Your task to perform on an android device: turn on priority inbox in the gmail app Image 0: 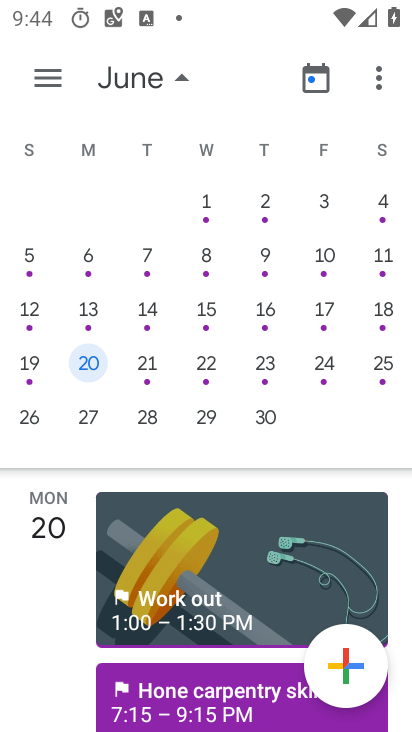
Step 0: press home button
Your task to perform on an android device: turn on priority inbox in the gmail app Image 1: 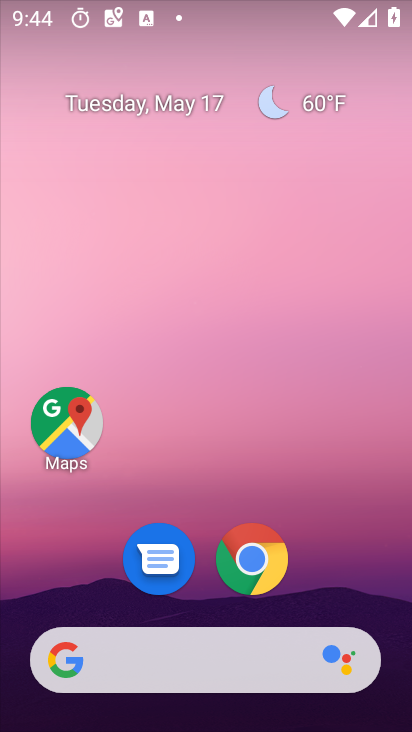
Step 1: drag from (248, 640) to (299, 146)
Your task to perform on an android device: turn on priority inbox in the gmail app Image 2: 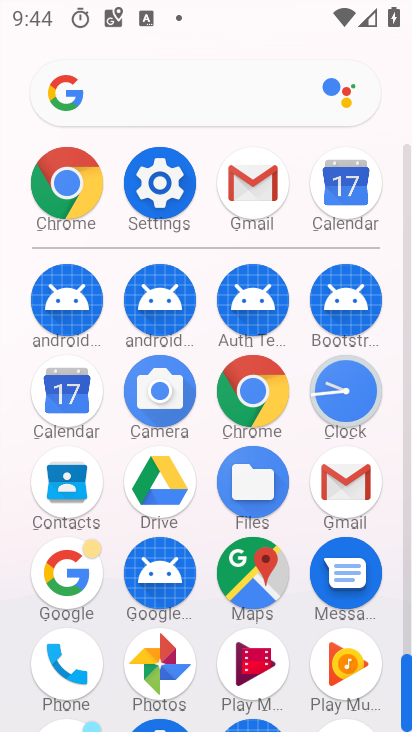
Step 2: click (356, 490)
Your task to perform on an android device: turn on priority inbox in the gmail app Image 3: 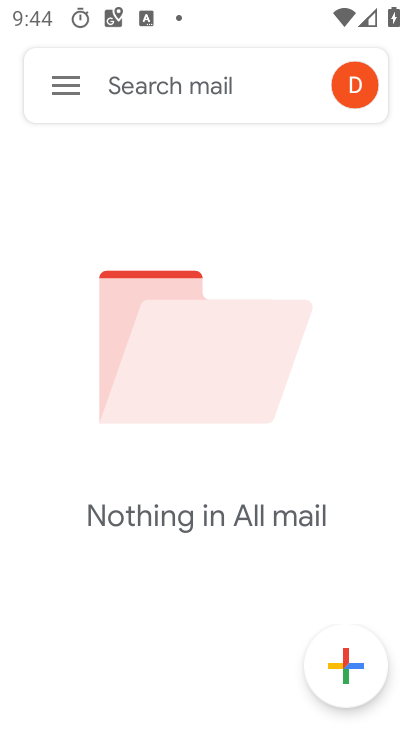
Step 3: click (69, 91)
Your task to perform on an android device: turn on priority inbox in the gmail app Image 4: 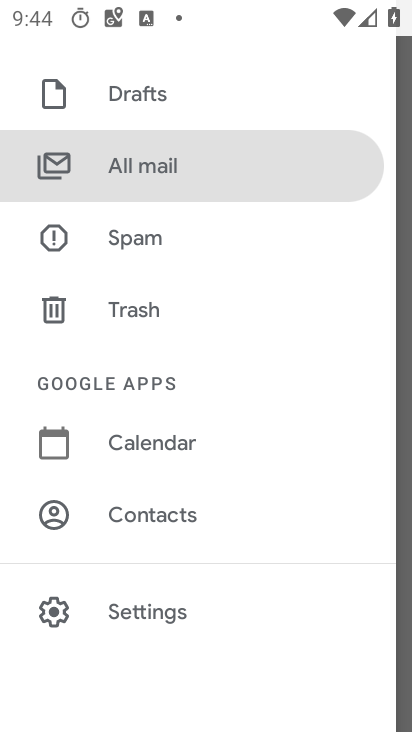
Step 4: click (157, 622)
Your task to perform on an android device: turn on priority inbox in the gmail app Image 5: 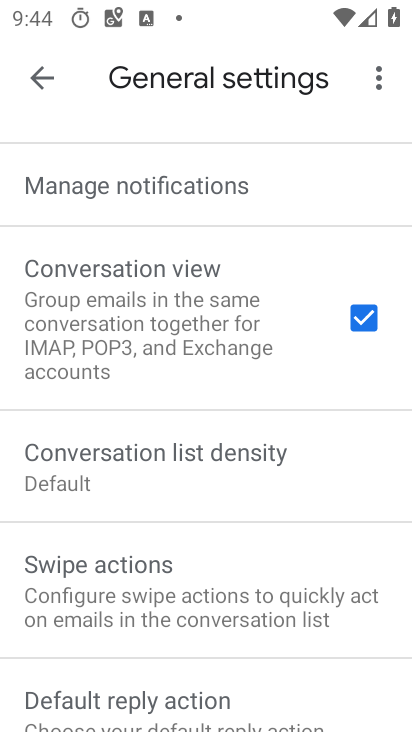
Step 5: click (32, 75)
Your task to perform on an android device: turn on priority inbox in the gmail app Image 6: 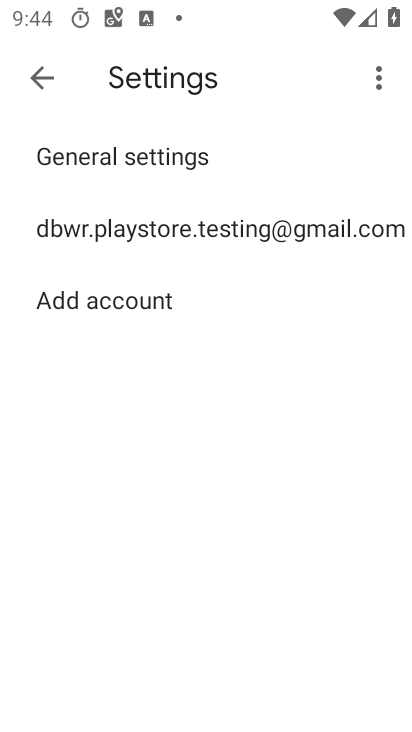
Step 6: click (269, 239)
Your task to perform on an android device: turn on priority inbox in the gmail app Image 7: 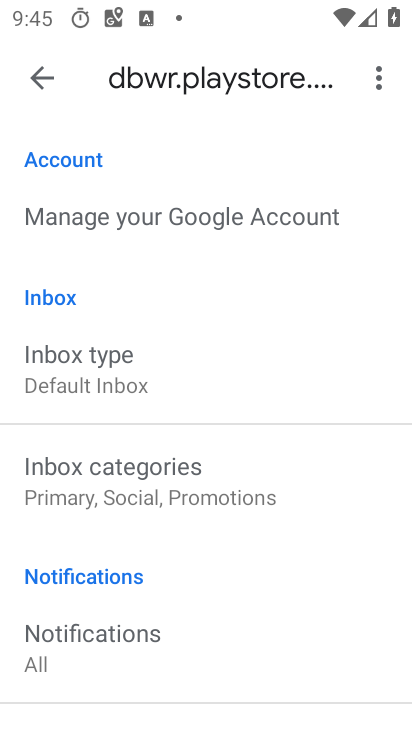
Step 7: click (142, 377)
Your task to perform on an android device: turn on priority inbox in the gmail app Image 8: 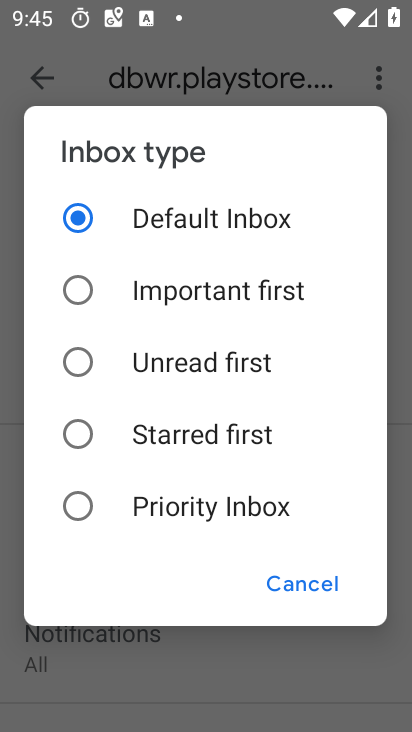
Step 8: click (136, 499)
Your task to perform on an android device: turn on priority inbox in the gmail app Image 9: 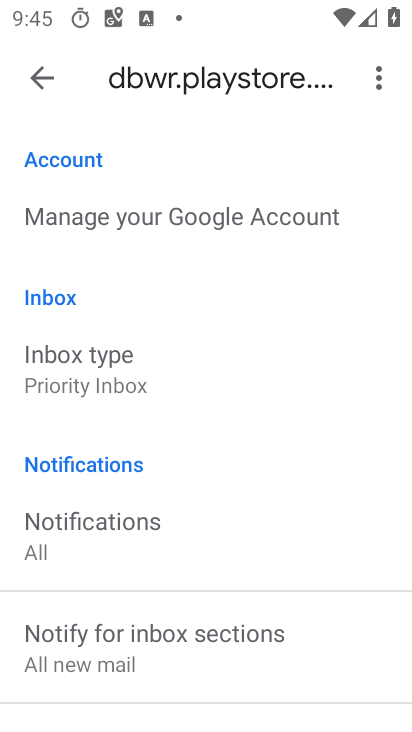
Step 9: task complete